Your task to perform on an android device: Go to Reddit.com Image 0: 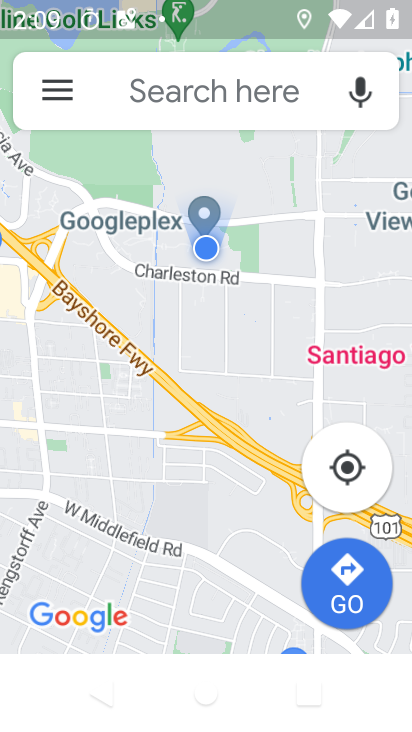
Step 0: press home button
Your task to perform on an android device: Go to Reddit.com Image 1: 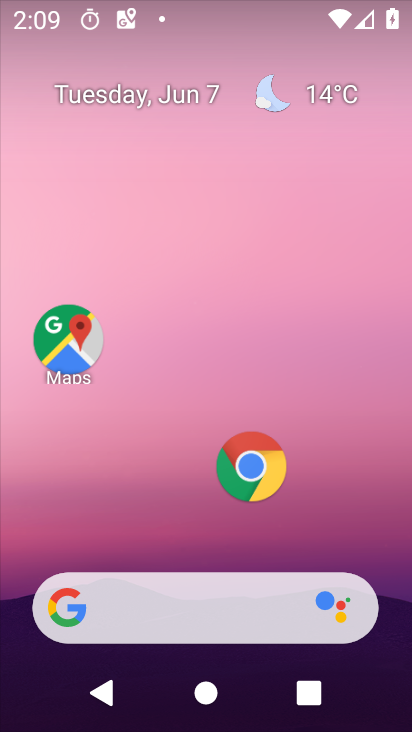
Step 1: click (246, 485)
Your task to perform on an android device: Go to Reddit.com Image 2: 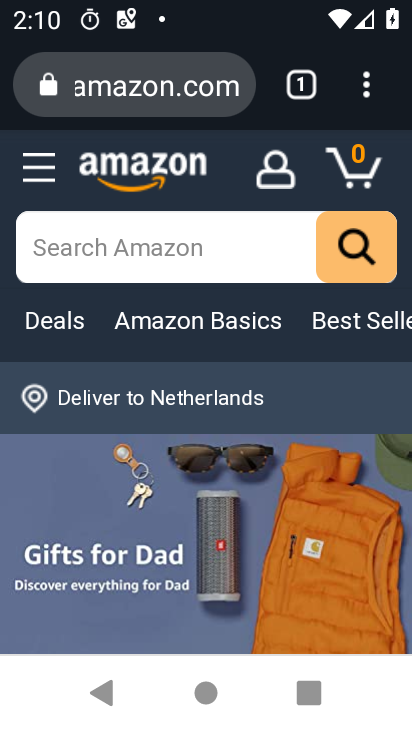
Step 2: click (289, 90)
Your task to perform on an android device: Go to Reddit.com Image 3: 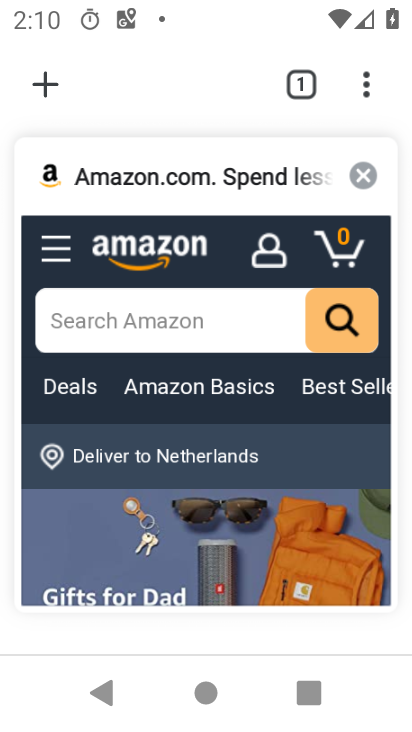
Step 3: click (371, 176)
Your task to perform on an android device: Go to Reddit.com Image 4: 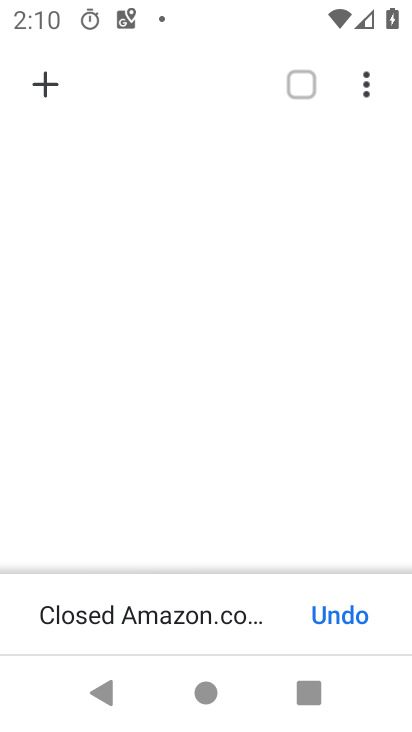
Step 4: click (42, 81)
Your task to perform on an android device: Go to Reddit.com Image 5: 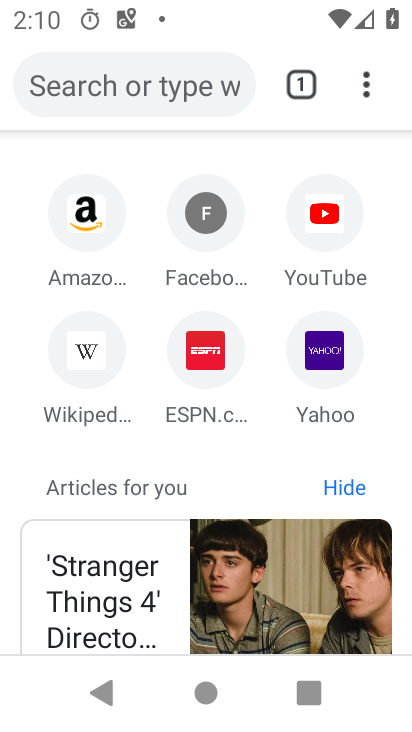
Step 5: click (197, 96)
Your task to perform on an android device: Go to Reddit.com Image 6: 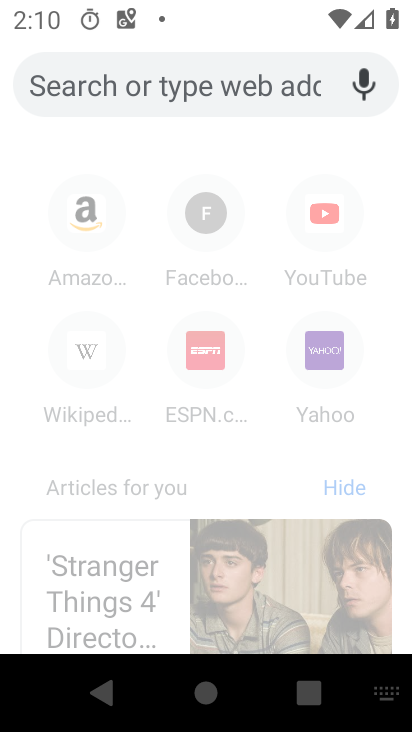
Step 6: type "reddit.com"
Your task to perform on an android device: Go to Reddit.com Image 7: 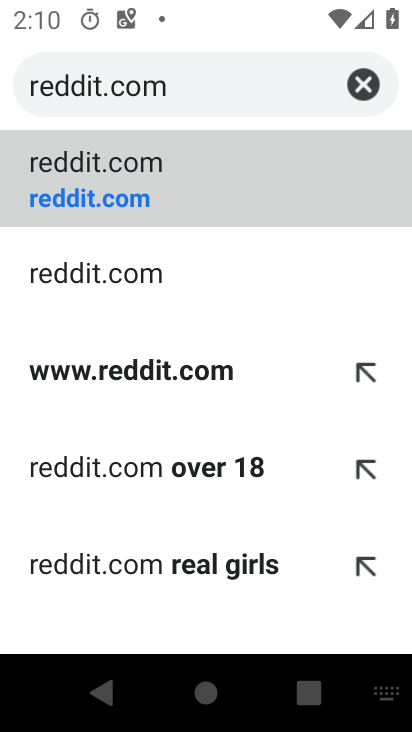
Step 7: click (173, 194)
Your task to perform on an android device: Go to Reddit.com Image 8: 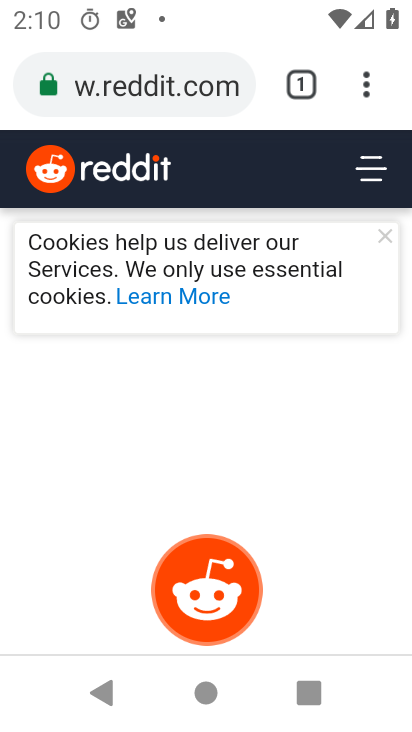
Step 8: task complete